Your task to perform on an android device: Show me popular games on the Play Store Image 0: 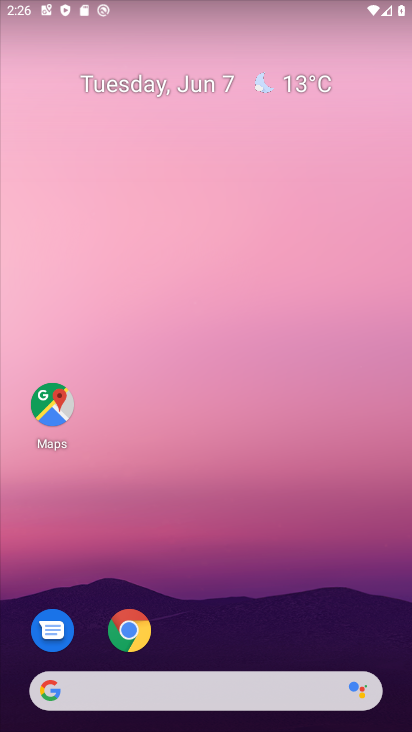
Step 0: drag from (289, 564) to (291, 301)
Your task to perform on an android device: Show me popular games on the Play Store Image 1: 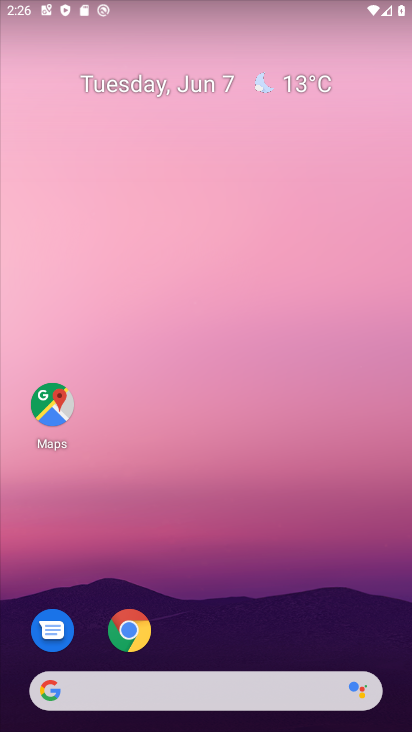
Step 1: drag from (282, 587) to (316, 200)
Your task to perform on an android device: Show me popular games on the Play Store Image 2: 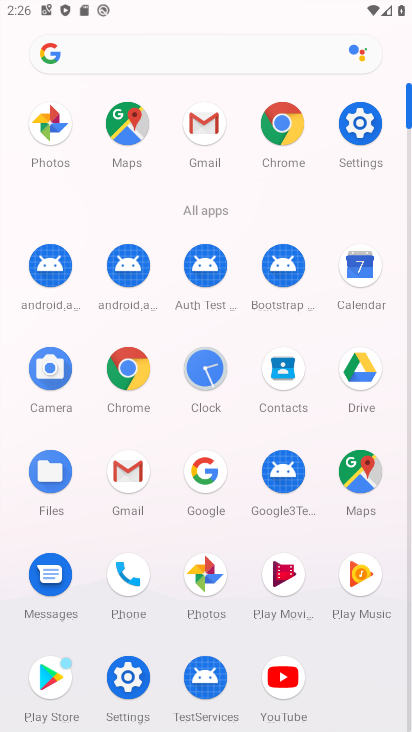
Step 2: click (44, 680)
Your task to perform on an android device: Show me popular games on the Play Store Image 3: 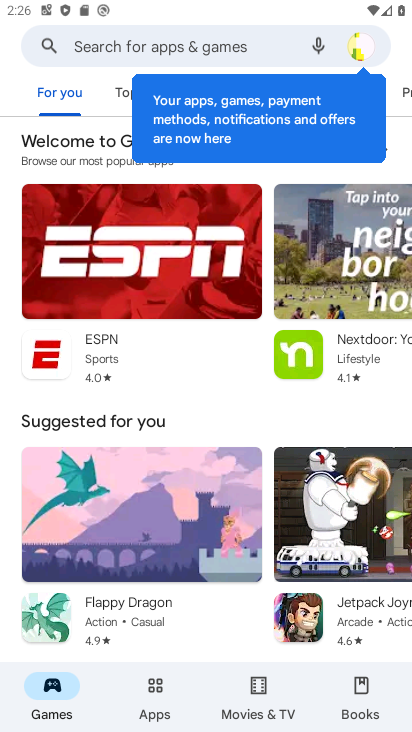
Step 3: click (127, 43)
Your task to perform on an android device: Show me popular games on the Play Store Image 4: 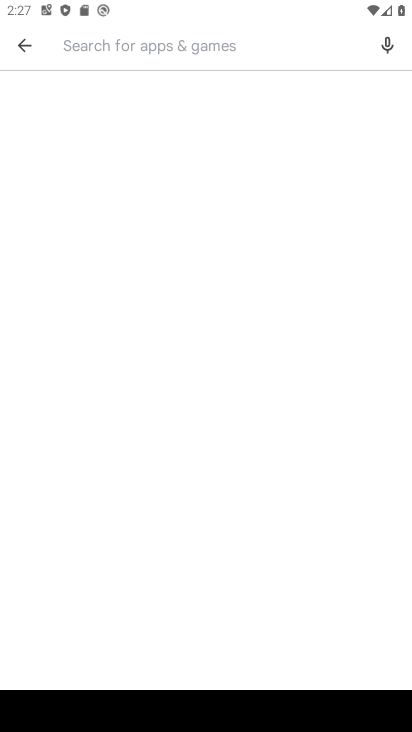
Step 4: type "popular games"
Your task to perform on an android device: Show me popular games on the Play Store Image 5: 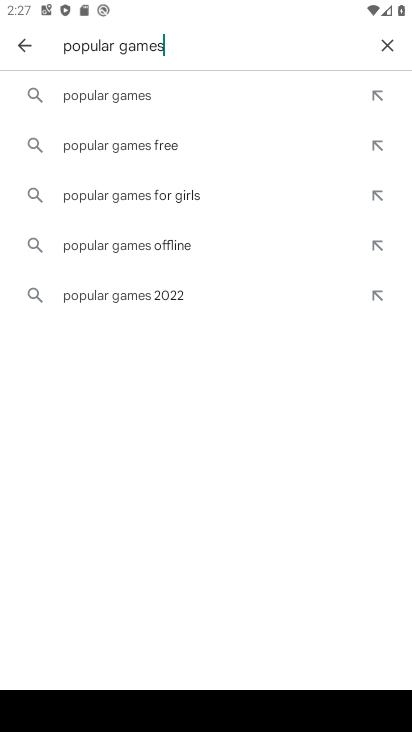
Step 5: click (176, 92)
Your task to perform on an android device: Show me popular games on the Play Store Image 6: 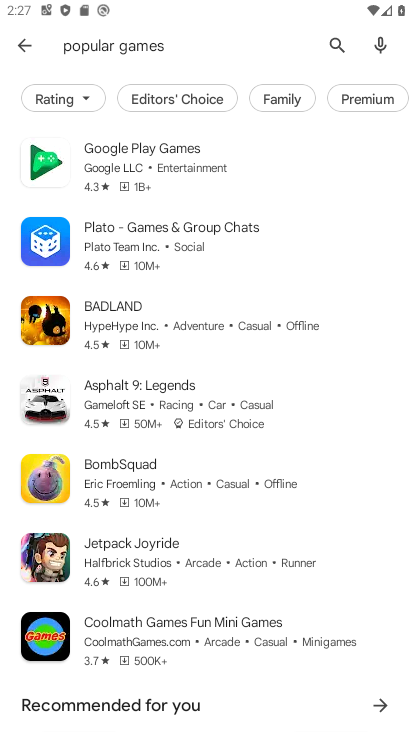
Step 6: task complete